Your task to perform on an android device: Open notification settings Image 0: 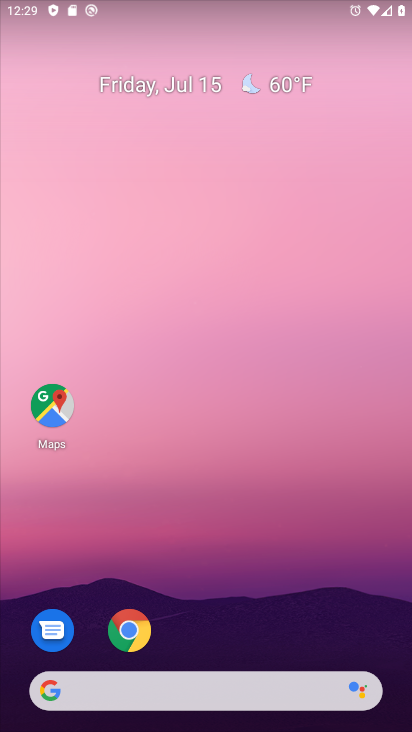
Step 0: drag from (204, 492) to (207, 100)
Your task to perform on an android device: Open notification settings Image 1: 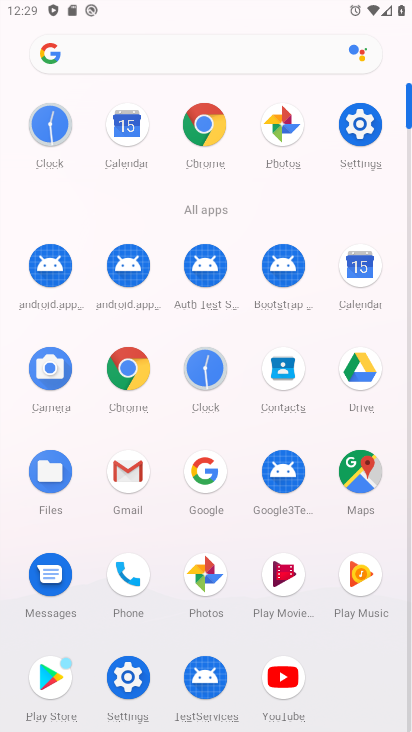
Step 1: click (352, 130)
Your task to perform on an android device: Open notification settings Image 2: 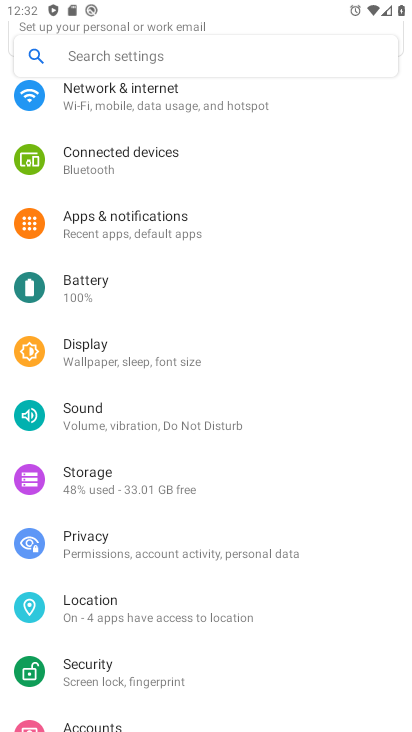
Step 2: click (99, 240)
Your task to perform on an android device: Open notification settings Image 3: 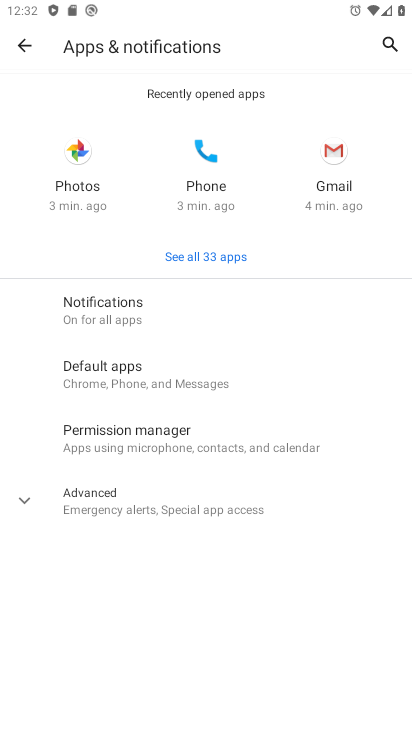
Step 3: task complete